Your task to perform on an android device: change alarm snooze length Image 0: 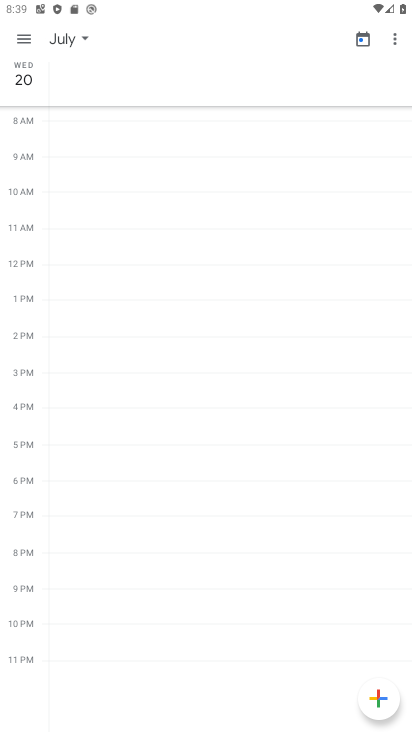
Step 0: press home button
Your task to perform on an android device: change alarm snooze length Image 1: 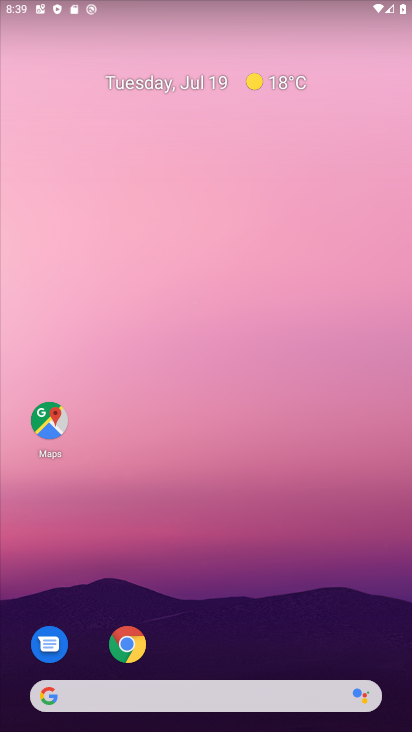
Step 1: drag from (224, 728) to (224, 77)
Your task to perform on an android device: change alarm snooze length Image 2: 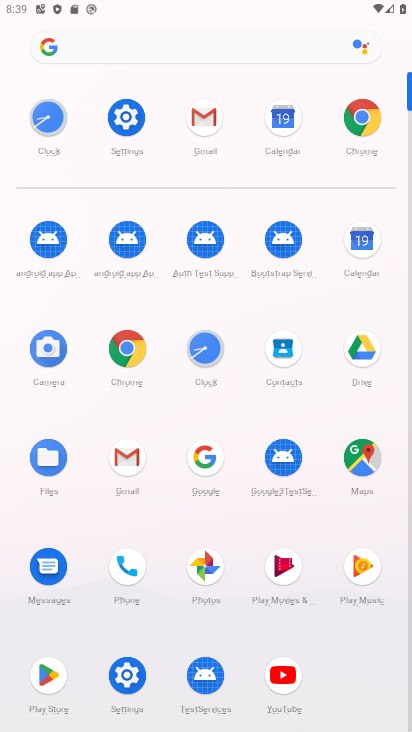
Step 2: click (201, 347)
Your task to perform on an android device: change alarm snooze length Image 3: 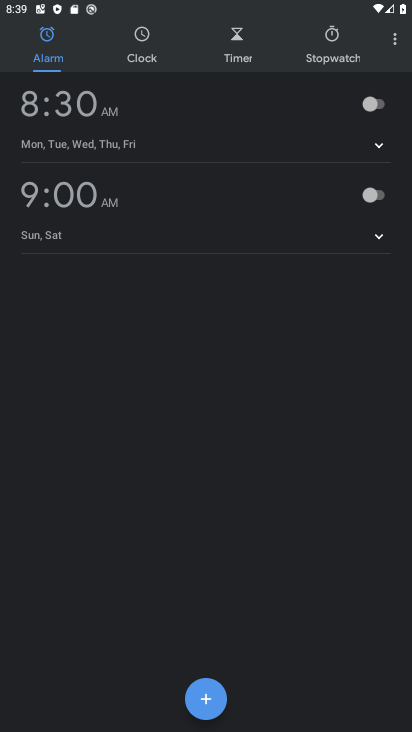
Step 3: click (391, 58)
Your task to perform on an android device: change alarm snooze length Image 4: 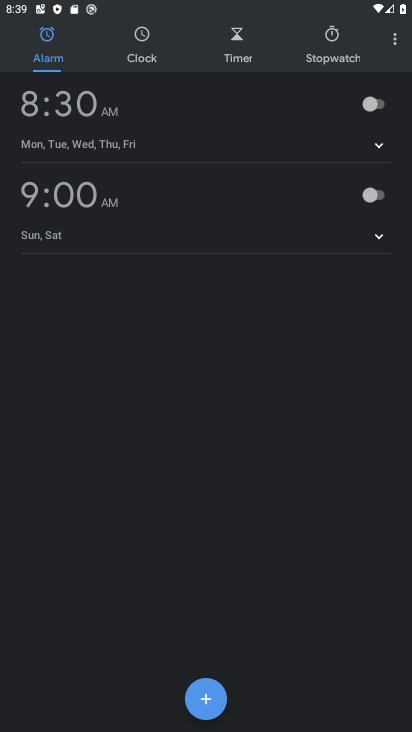
Step 4: click (394, 42)
Your task to perform on an android device: change alarm snooze length Image 5: 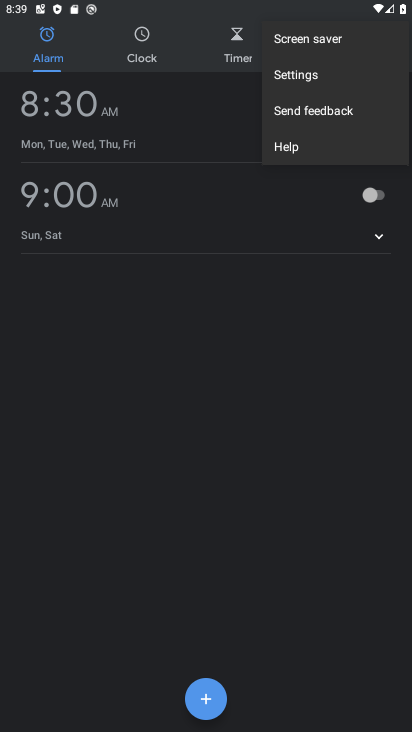
Step 5: click (295, 75)
Your task to perform on an android device: change alarm snooze length Image 6: 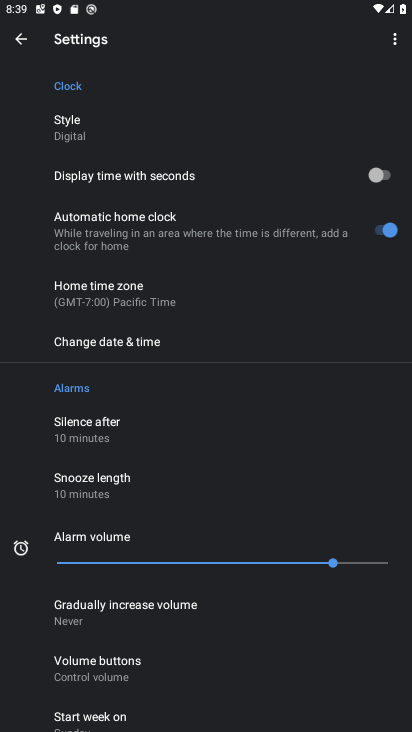
Step 6: click (85, 483)
Your task to perform on an android device: change alarm snooze length Image 7: 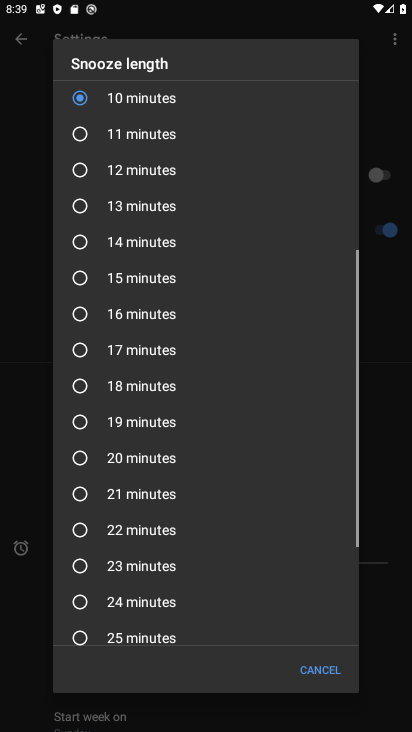
Step 7: click (77, 494)
Your task to perform on an android device: change alarm snooze length Image 8: 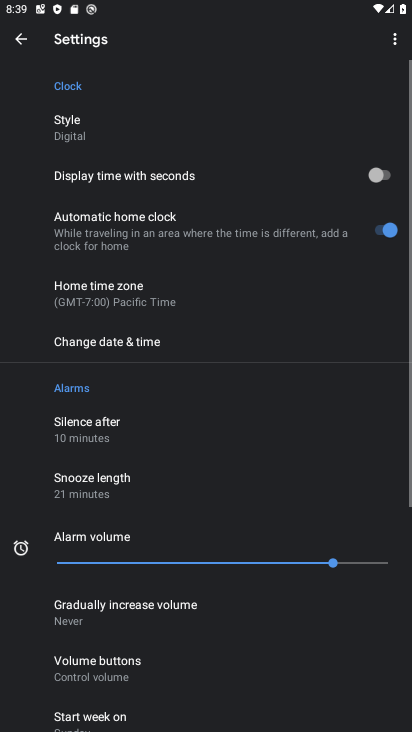
Step 8: task complete